Your task to perform on an android device: Search for vegetarian restaurants on Maps Image 0: 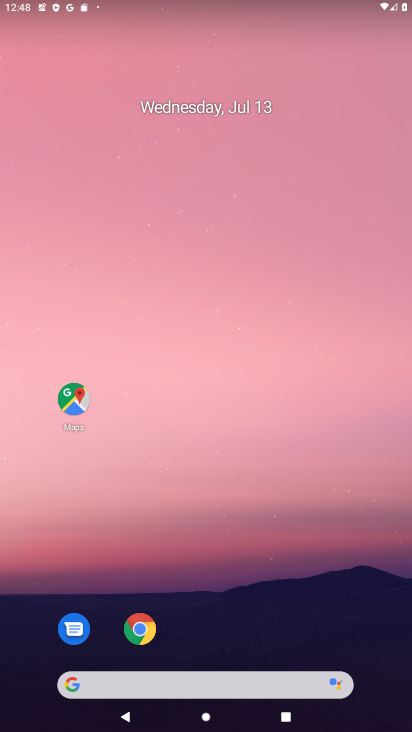
Step 0: drag from (256, 465) to (256, 281)
Your task to perform on an android device: Search for vegetarian restaurants on Maps Image 1: 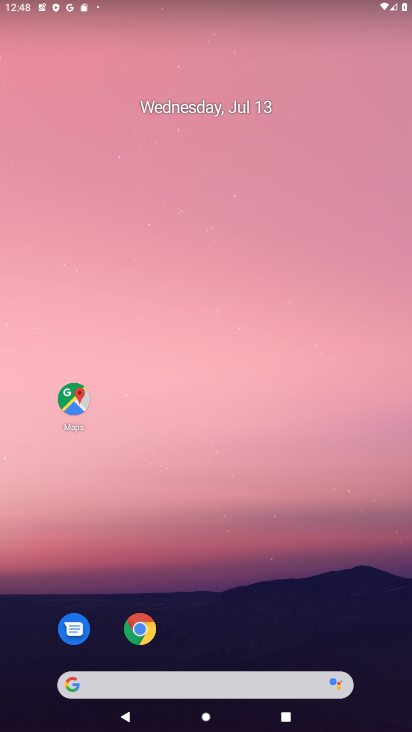
Step 1: click (75, 387)
Your task to perform on an android device: Search for vegetarian restaurants on Maps Image 2: 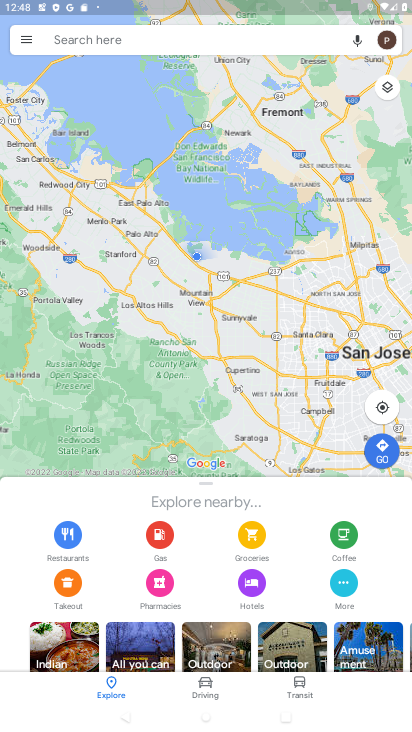
Step 2: click (212, 37)
Your task to perform on an android device: Search for vegetarian restaurants on Maps Image 3: 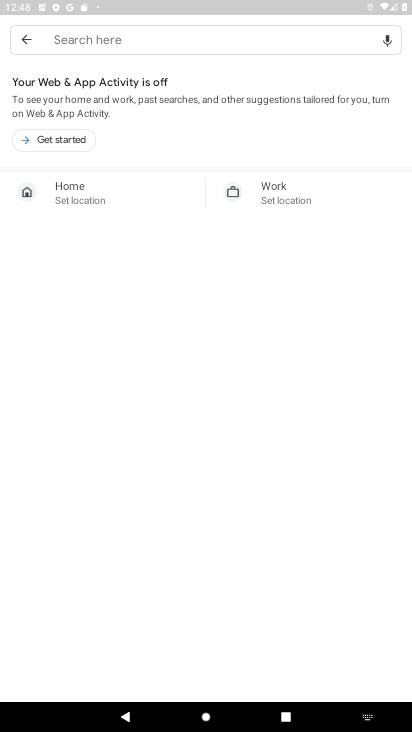
Step 3: click (239, 35)
Your task to perform on an android device: Search for vegetarian restaurants on Maps Image 4: 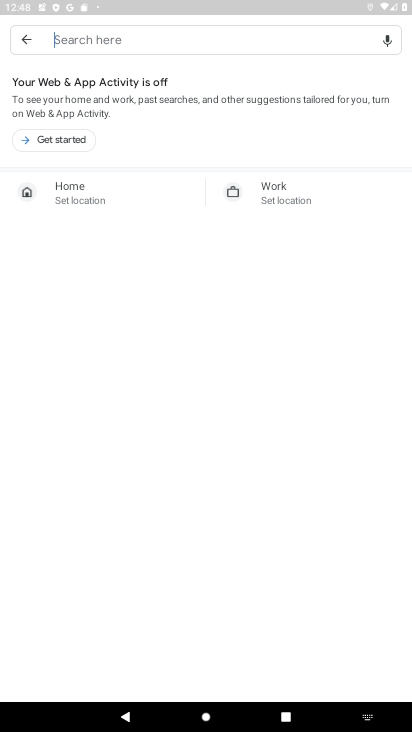
Step 4: type "r vegetarian restaurants  "
Your task to perform on an android device: Search for vegetarian restaurants on Maps Image 5: 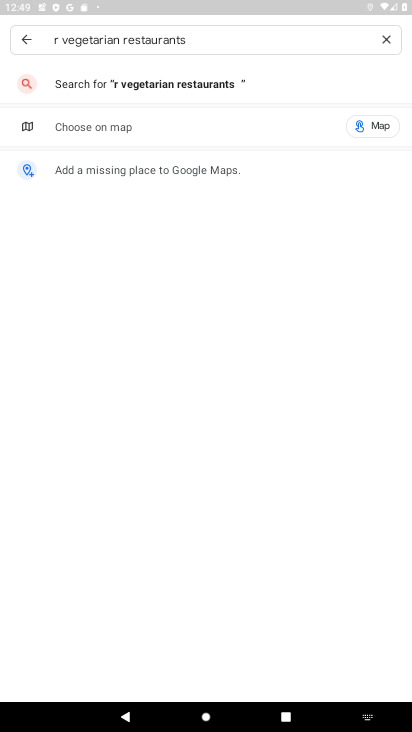
Step 5: click (164, 70)
Your task to perform on an android device: Search for vegetarian restaurants on Maps Image 6: 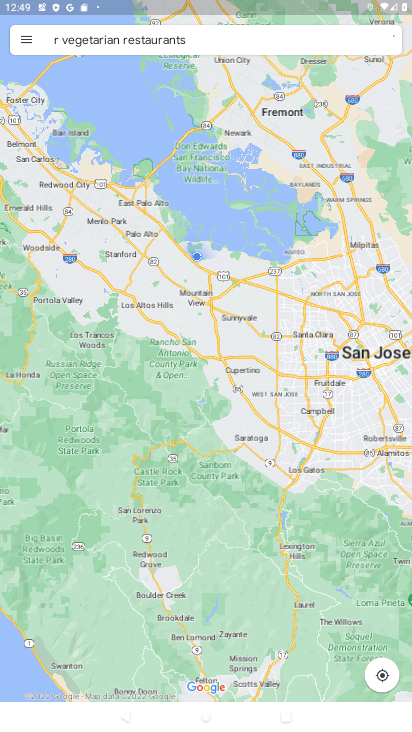
Step 6: task complete